Your task to perform on an android device: open wifi settings Image 0: 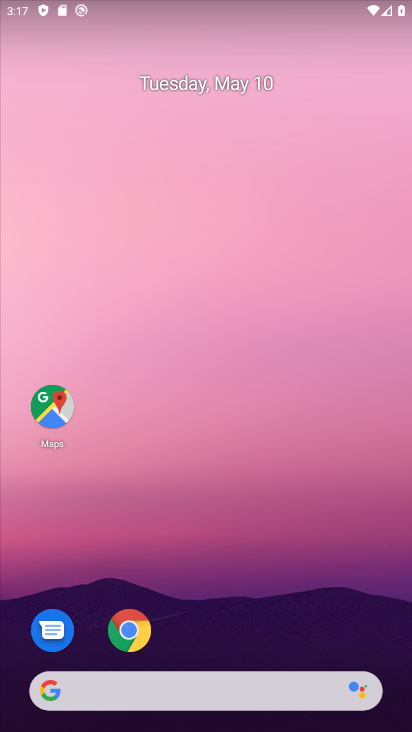
Step 0: drag from (119, 10) to (140, 727)
Your task to perform on an android device: open wifi settings Image 1: 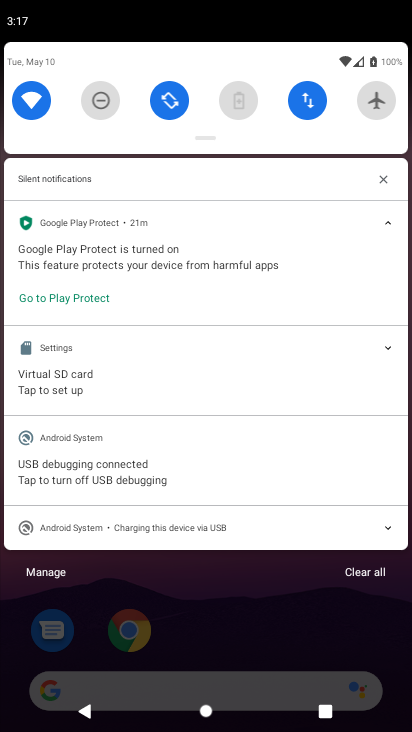
Step 1: click (33, 114)
Your task to perform on an android device: open wifi settings Image 2: 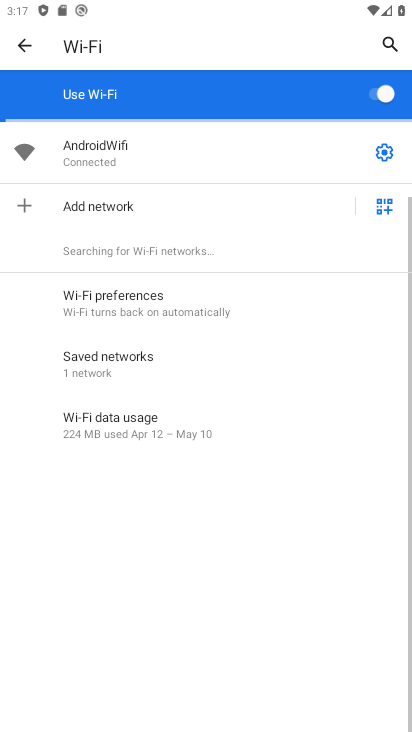
Step 2: task complete